Your task to perform on an android device: toggle wifi Image 0: 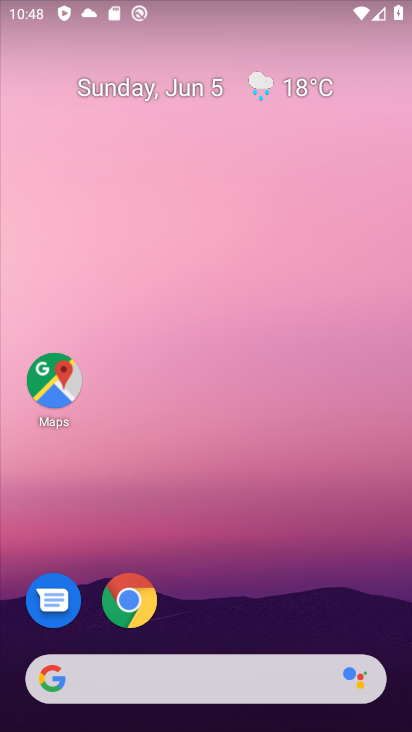
Step 0: drag from (209, 633) to (220, 221)
Your task to perform on an android device: toggle wifi Image 1: 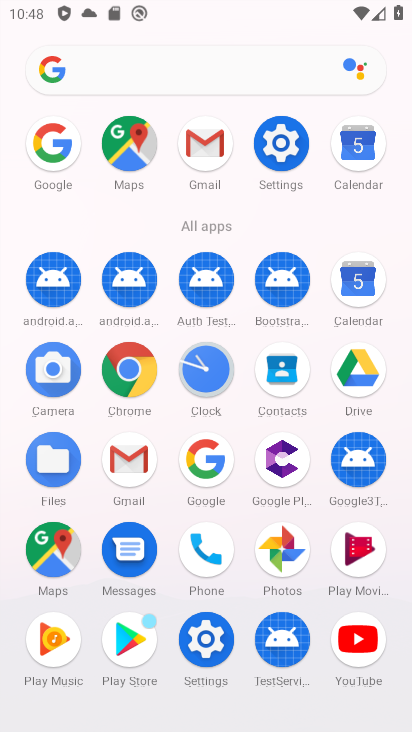
Step 1: click (262, 126)
Your task to perform on an android device: toggle wifi Image 2: 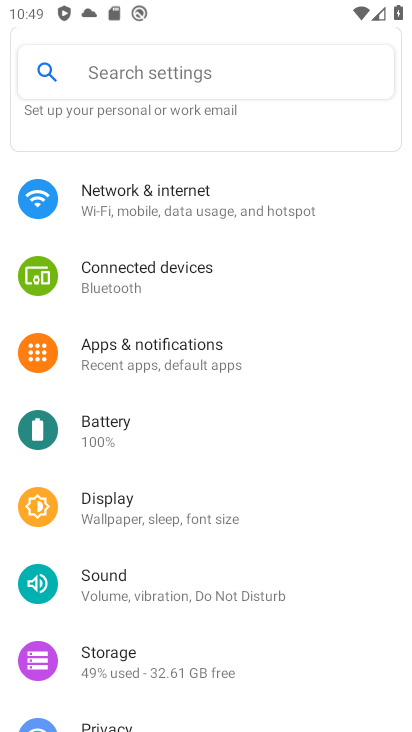
Step 2: click (155, 209)
Your task to perform on an android device: toggle wifi Image 3: 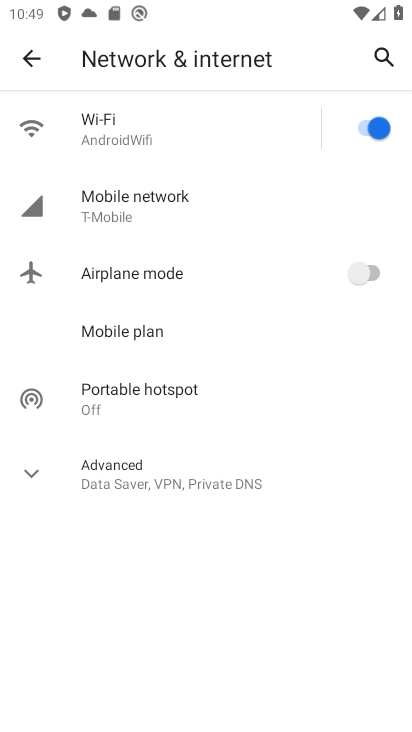
Step 3: click (374, 115)
Your task to perform on an android device: toggle wifi Image 4: 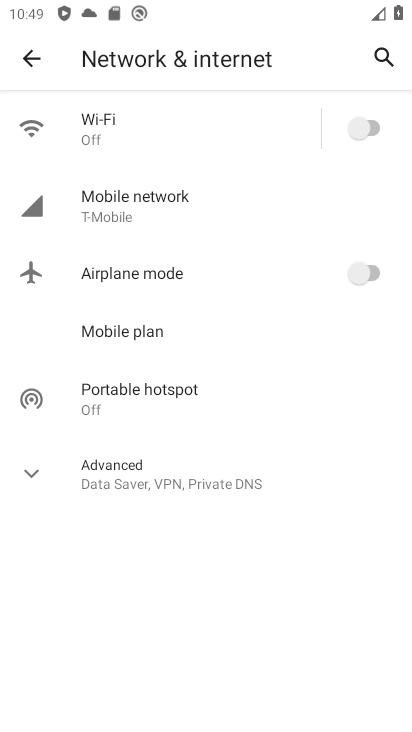
Step 4: task complete